Your task to perform on an android device: Open internet settings Image 0: 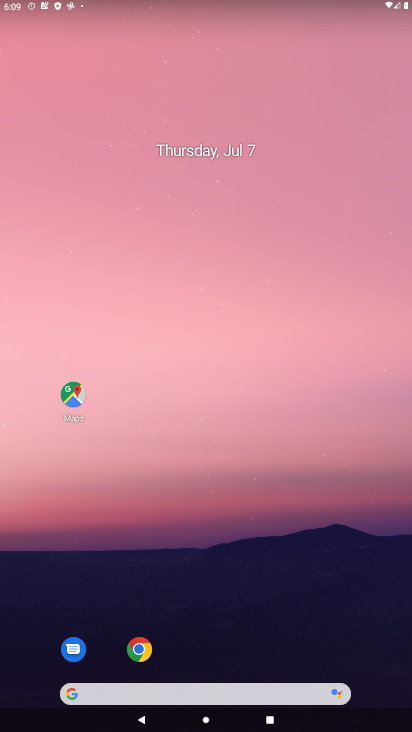
Step 0: drag from (366, 660) to (191, 24)
Your task to perform on an android device: Open internet settings Image 1: 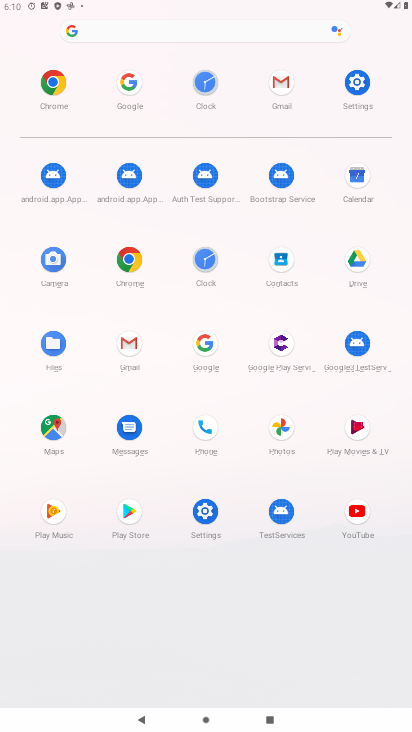
Step 1: click (356, 92)
Your task to perform on an android device: Open internet settings Image 2: 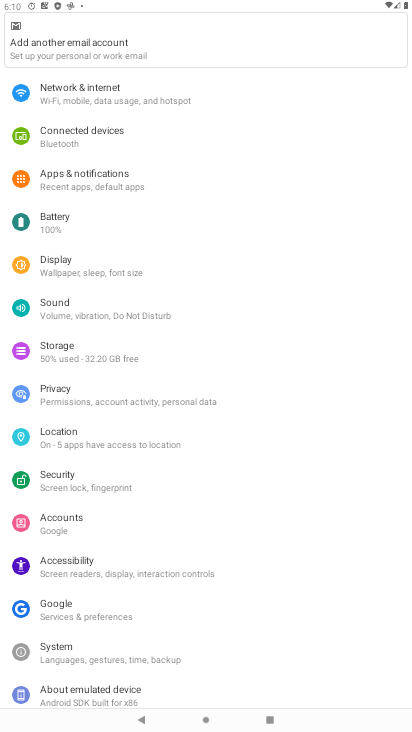
Step 2: click (140, 109)
Your task to perform on an android device: Open internet settings Image 3: 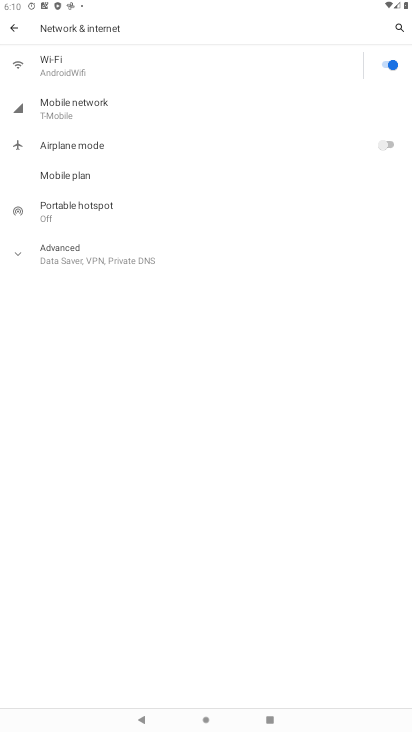
Step 3: task complete